Your task to perform on an android device: Search for Mexican restaurants on Maps Image 0: 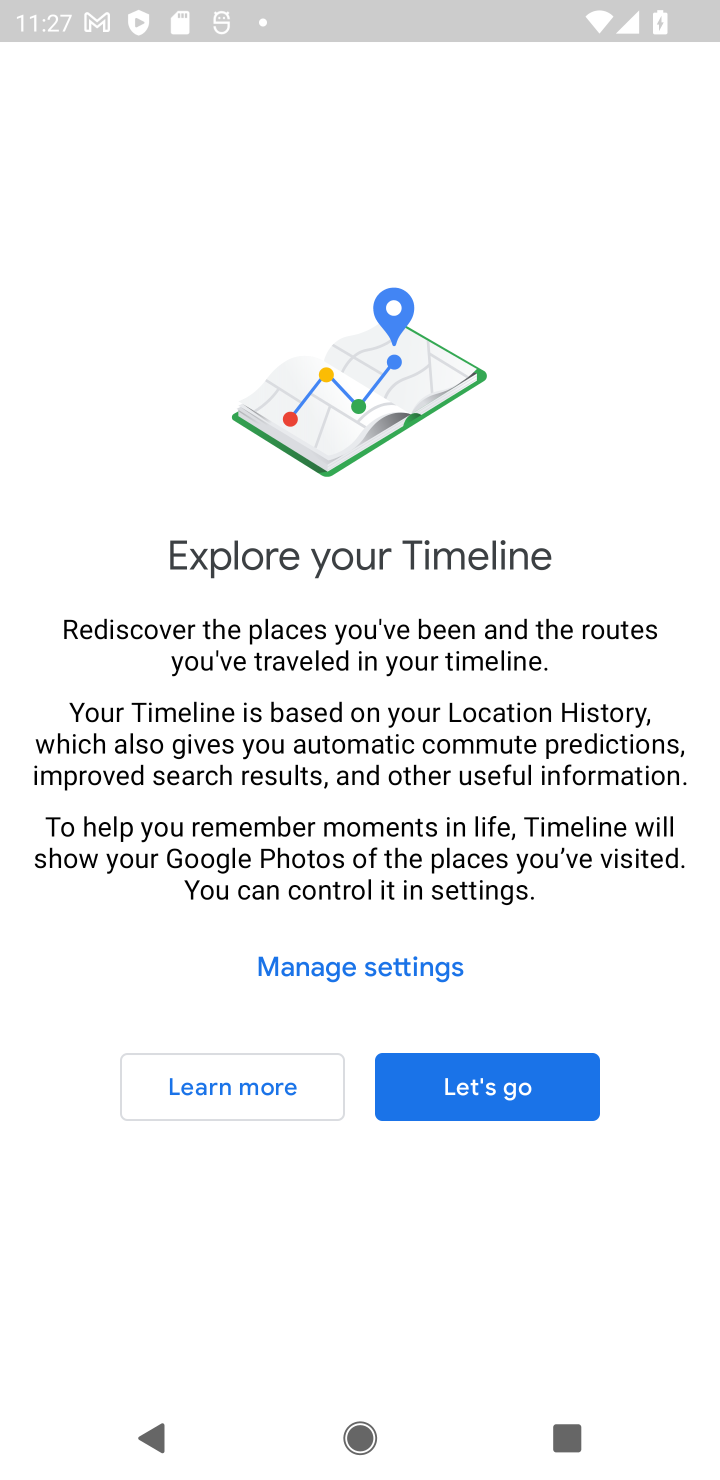
Step 0: press home button
Your task to perform on an android device: Search for Mexican restaurants on Maps Image 1: 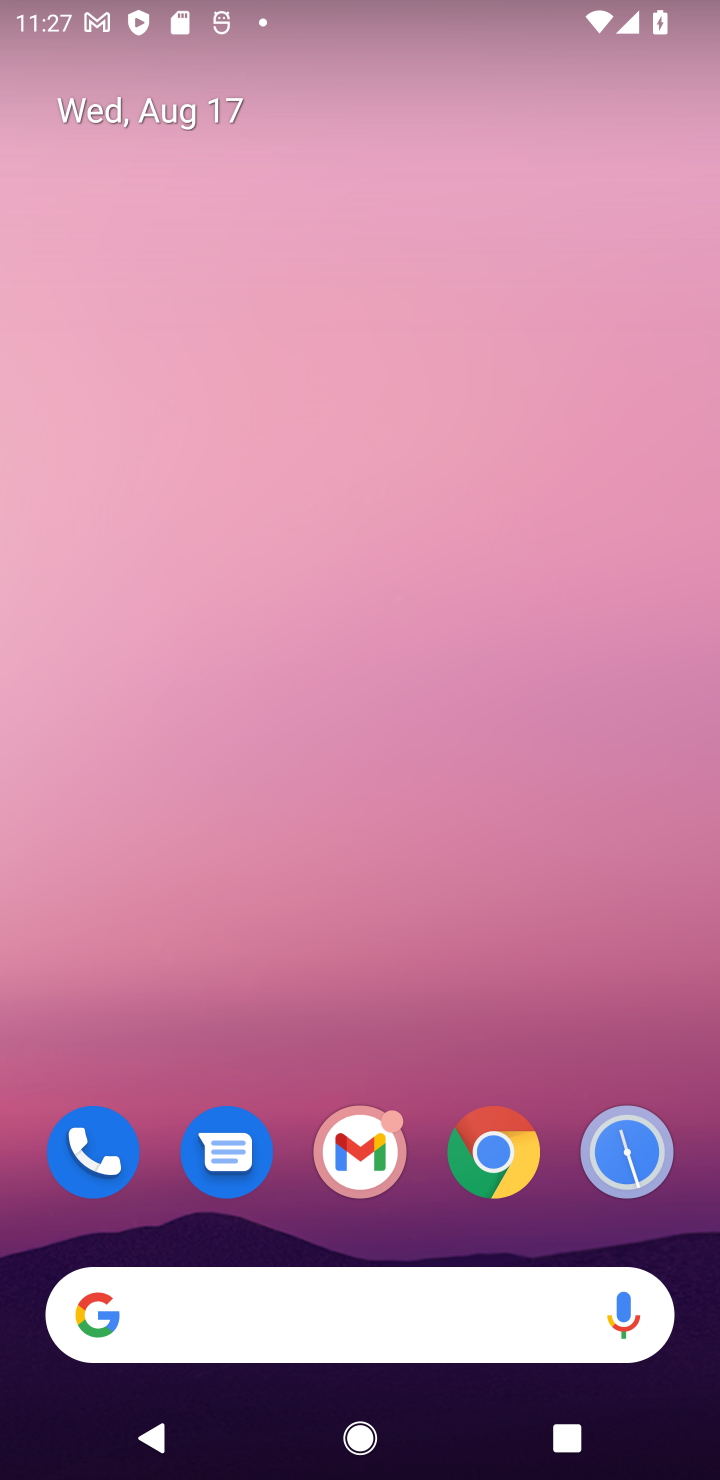
Step 1: drag from (673, 1263) to (413, 139)
Your task to perform on an android device: Search for Mexican restaurants on Maps Image 2: 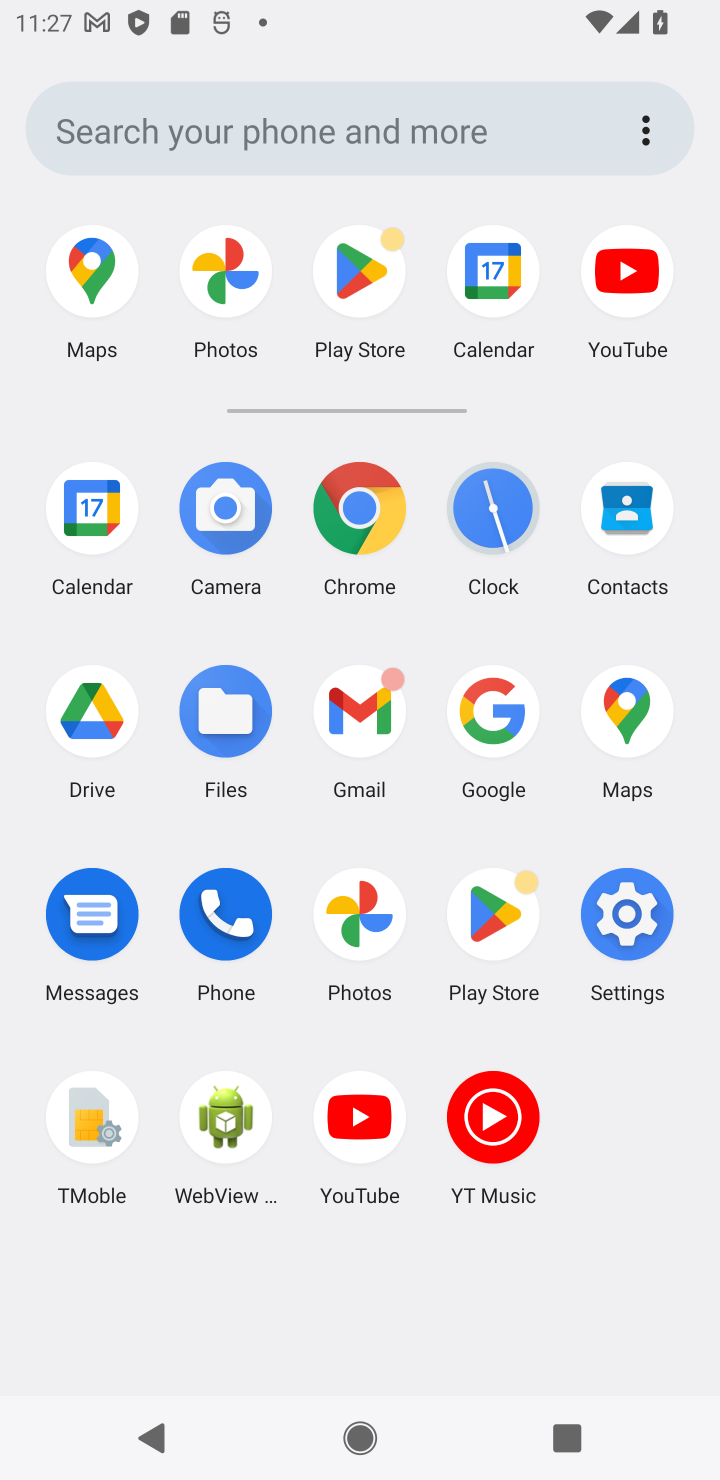
Step 2: click (630, 714)
Your task to perform on an android device: Search for Mexican restaurants on Maps Image 3: 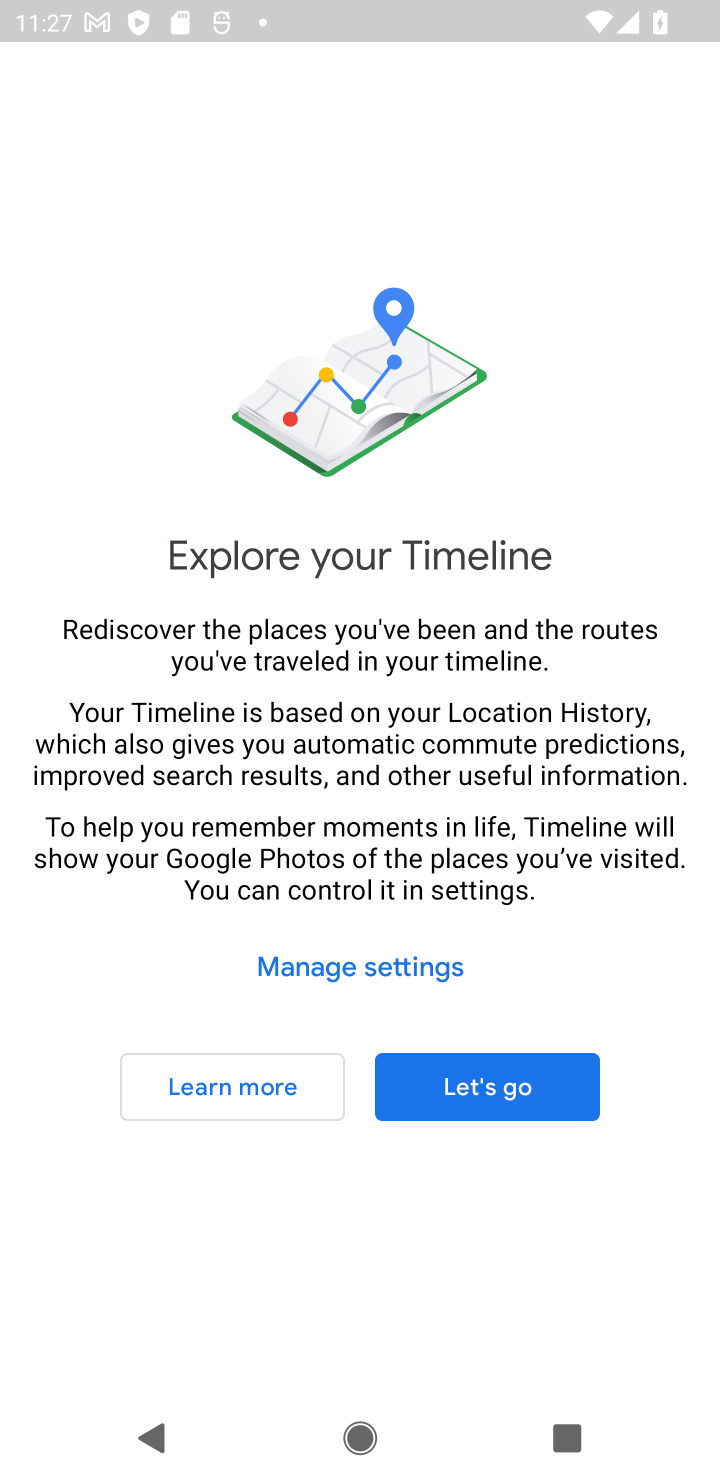
Step 3: press back button
Your task to perform on an android device: Search for Mexican restaurants on Maps Image 4: 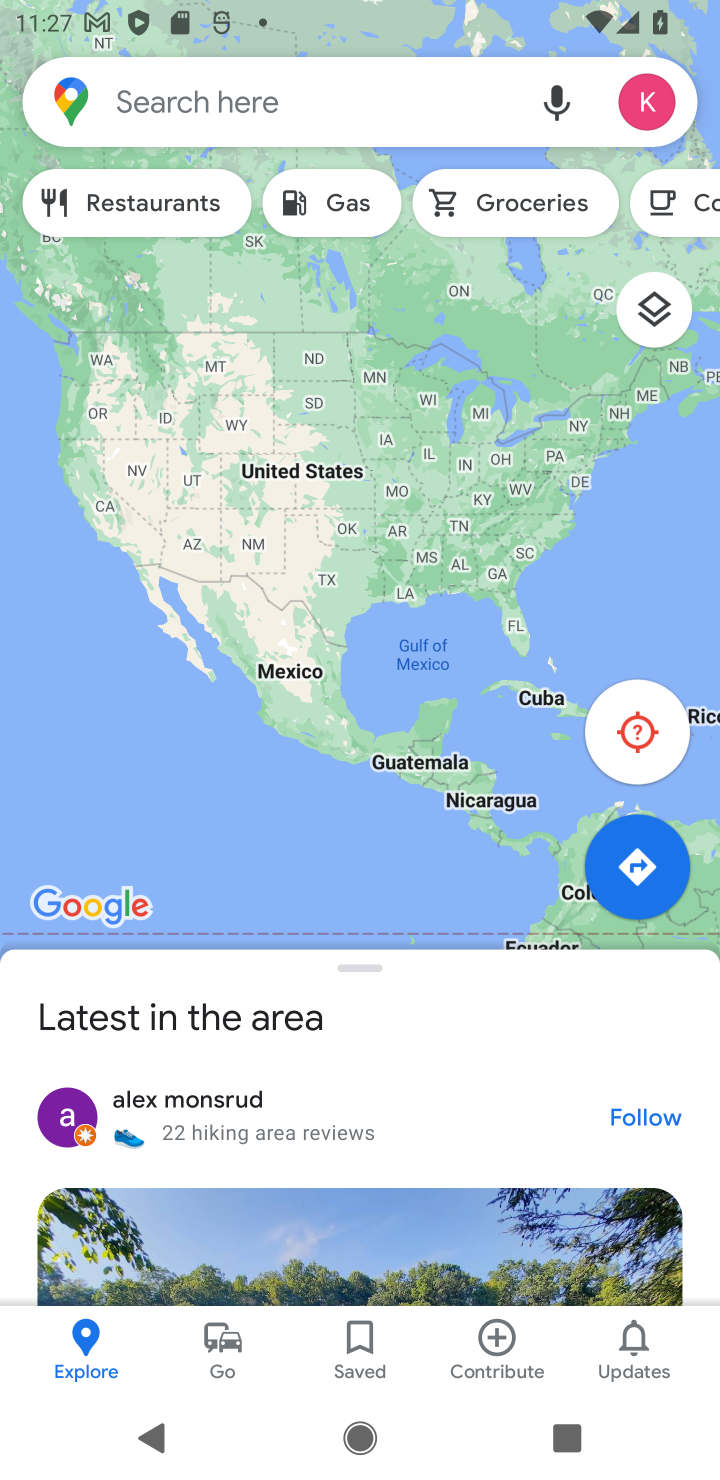
Step 4: click (192, 90)
Your task to perform on an android device: Search for Mexican restaurants on Maps Image 5: 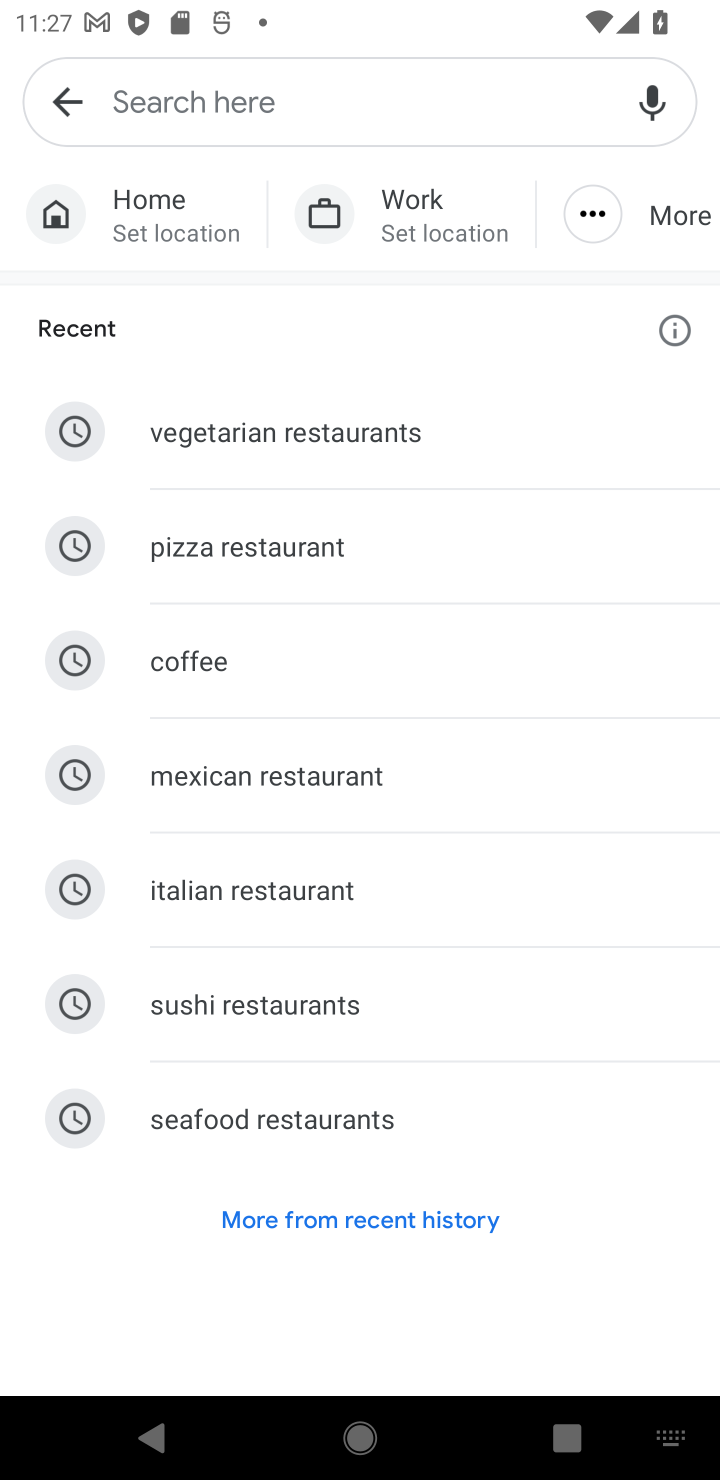
Step 5: click (236, 768)
Your task to perform on an android device: Search for Mexican restaurants on Maps Image 6: 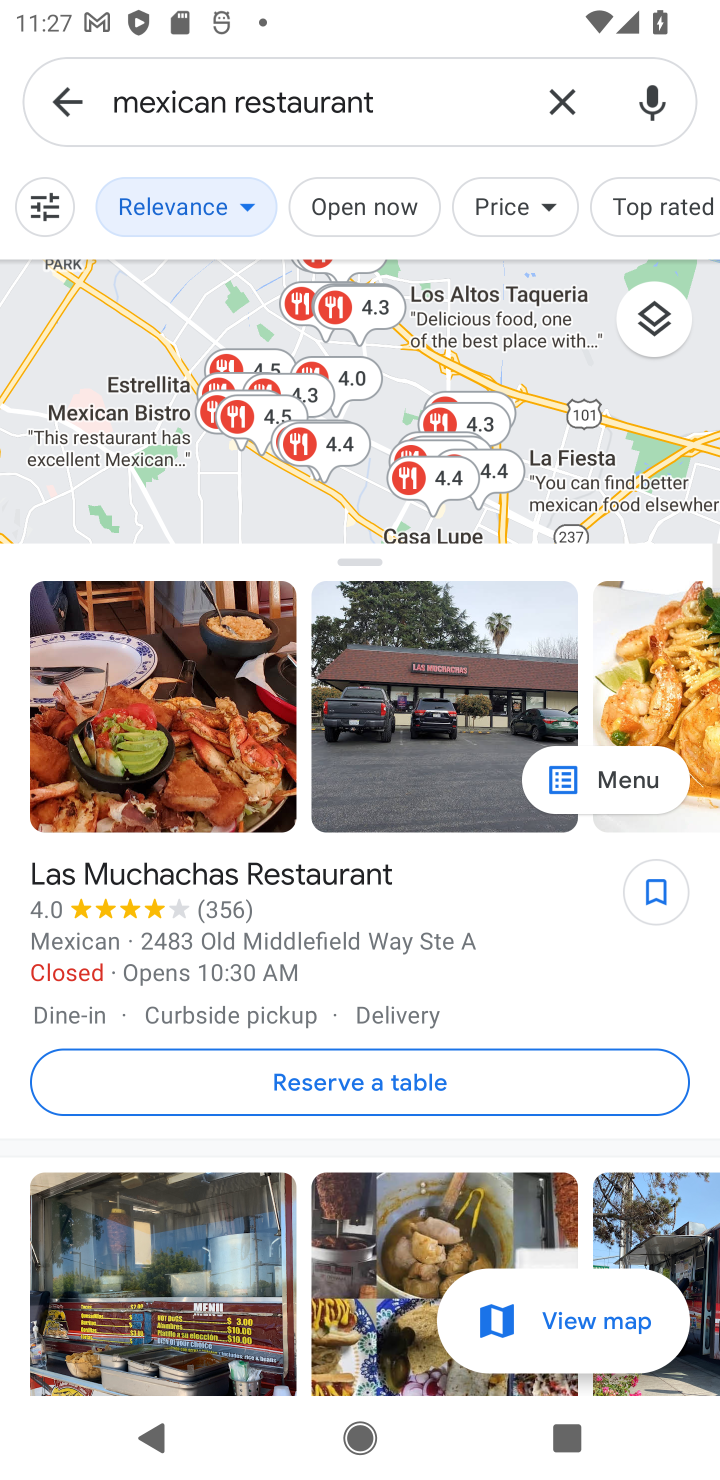
Step 6: task complete